Your task to perform on an android device: What's the weather going to be this weekend? Image 0: 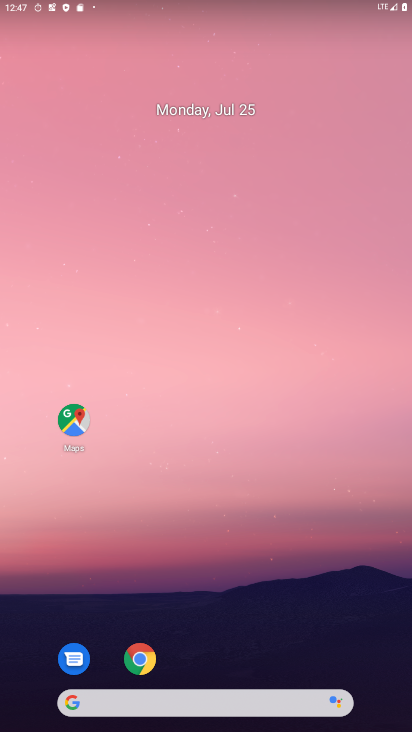
Step 0: click (94, 696)
Your task to perform on an android device: What's the weather going to be this weekend? Image 1: 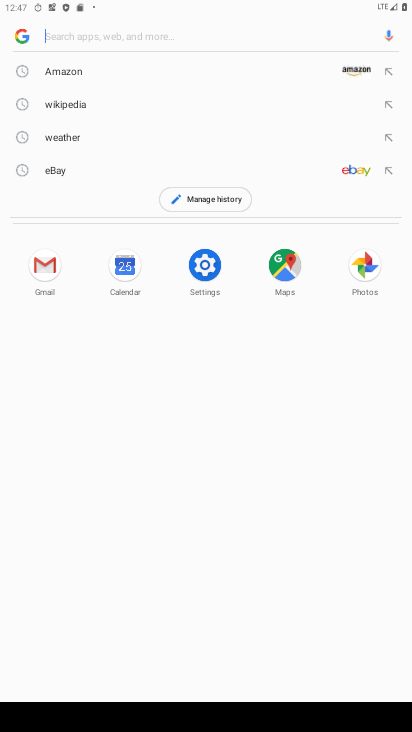
Step 1: type "What's the weather going to be this weekend?"
Your task to perform on an android device: What's the weather going to be this weekend? Image 2: 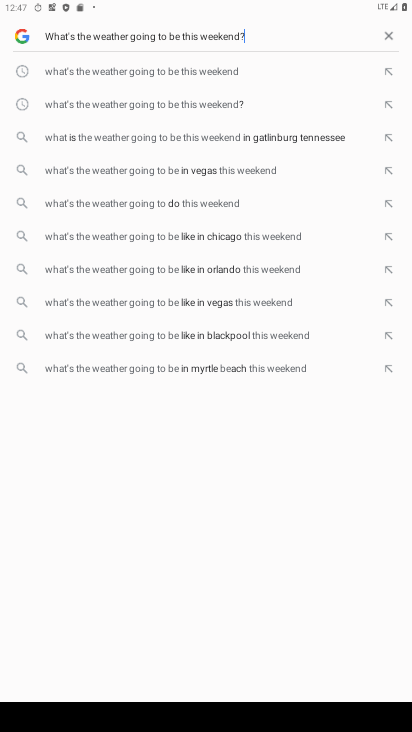
Step 2: type ""
Your task to perform on an android device: What's the weather going to be this weekend? Image 3: 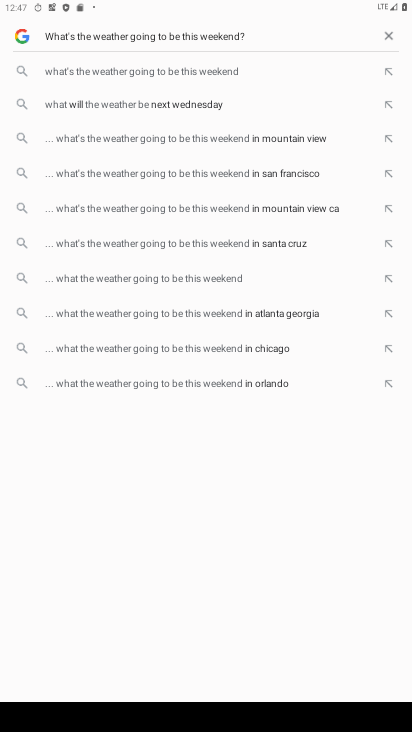
Step 3: click (110, 72)
Your task to perform on an android device: What's the weather going to be this weekend? Image 4: 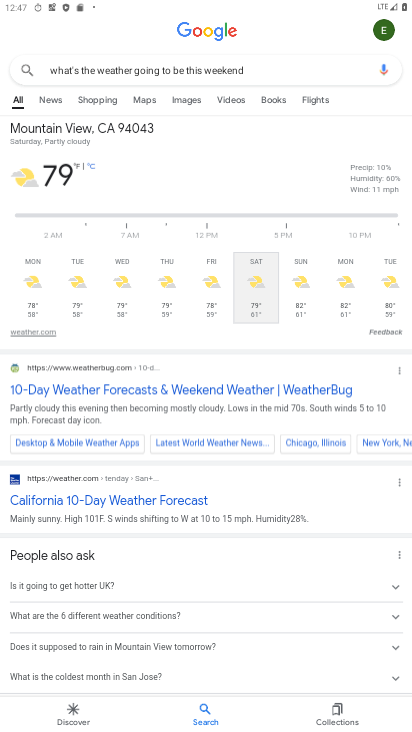
Step 4: task complete